Your task to perform on an android device: open wifi settings Image 0: 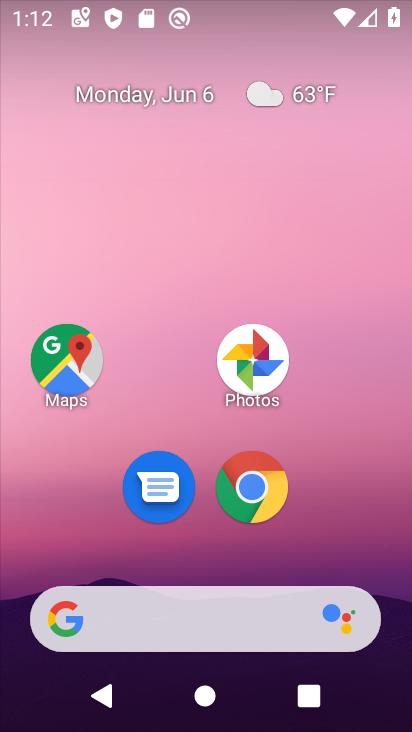
Step 0: drag from (125, 598) to (203, 81)
Your task to perform on an android device: open wifi settings Image 1: 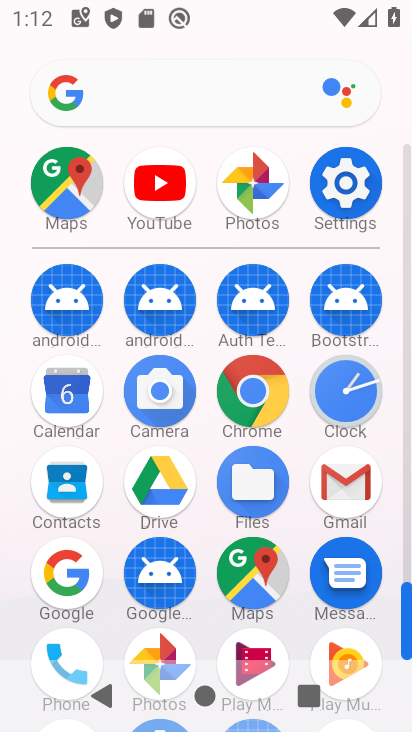
Step 1: drag from (160, 611) to (272, 248)
Your task to perform on an android device: open wifi settings Image 2: 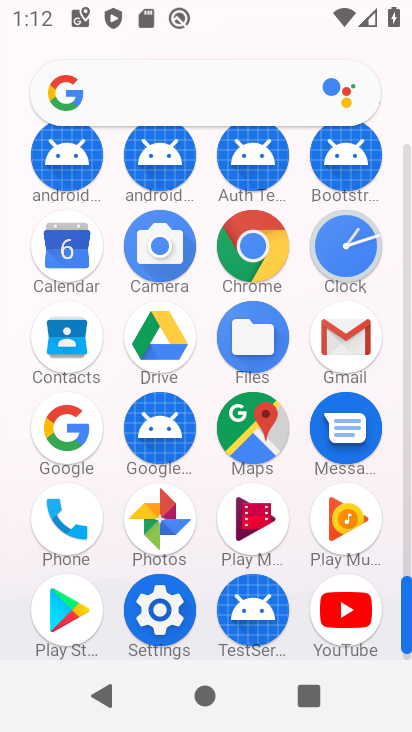
Step 2: click (158, 619)
Your task to perform on an android device: open wifi settings Image 3: 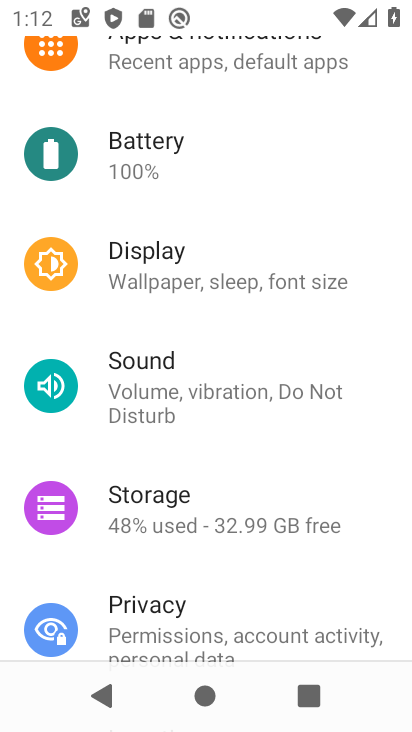
Step 3: drag from (248, 149) to (211, 523)
Your task to perform on an android device: open wifi settings Image 4: 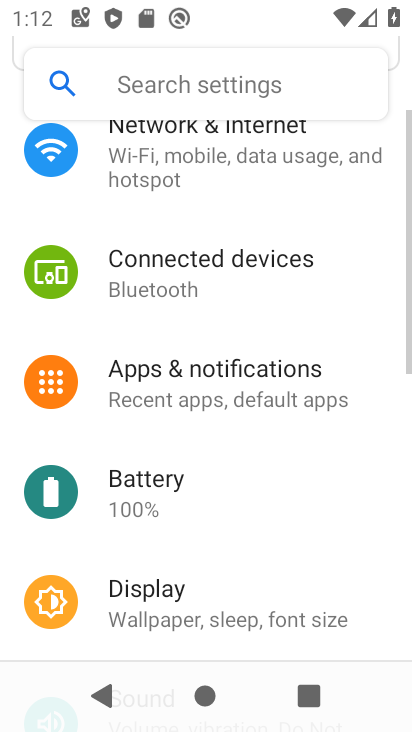
Step 4: drag from (194, 191) to (193, 542)
Your task to perform on an android device: open wifi settings Image 5: 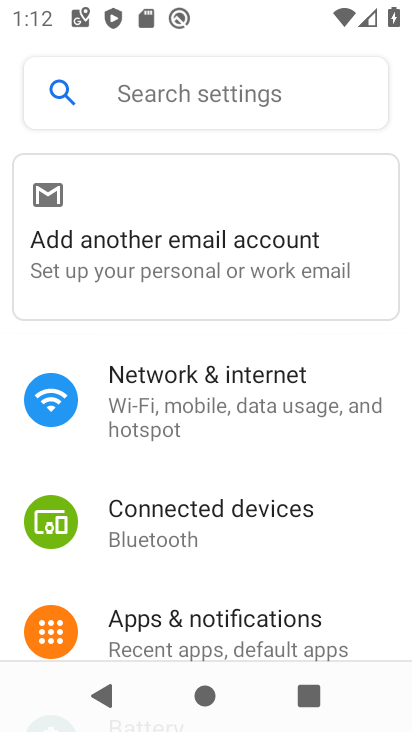
Step 5: click (220, 431)
Your task to perform on an android device: open wifi settings Image 6: 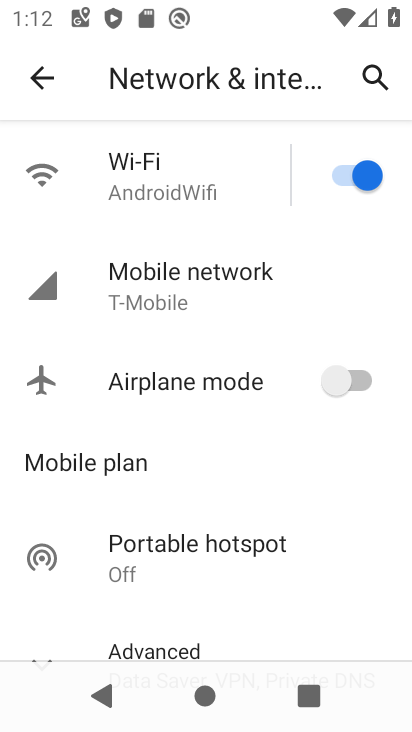
Step 6: click (196, 209)
Your task to perform on an android device: open wifi settings Image 7: 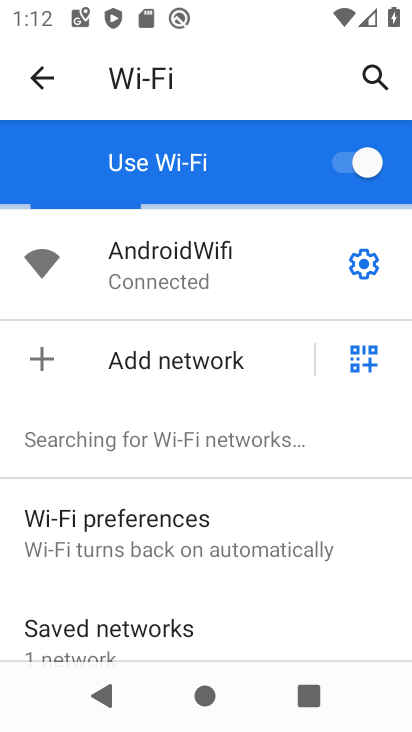
Step 7: task complete